Your task to perform on an android device: change text size in settings app Image 0: 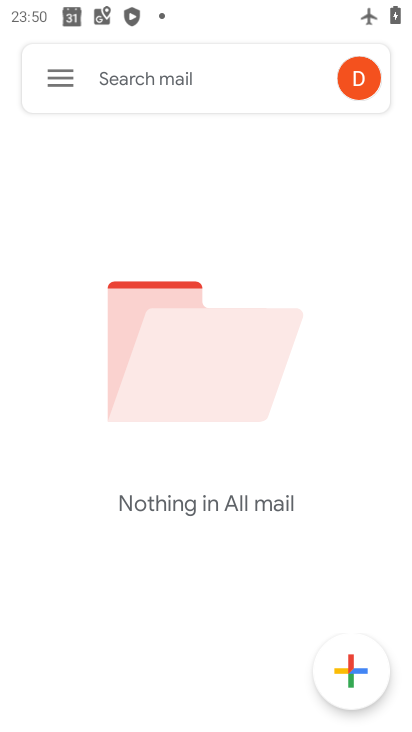
Step 0: press home button
Your task to perform on an android device: change text size in settings app Image 1: 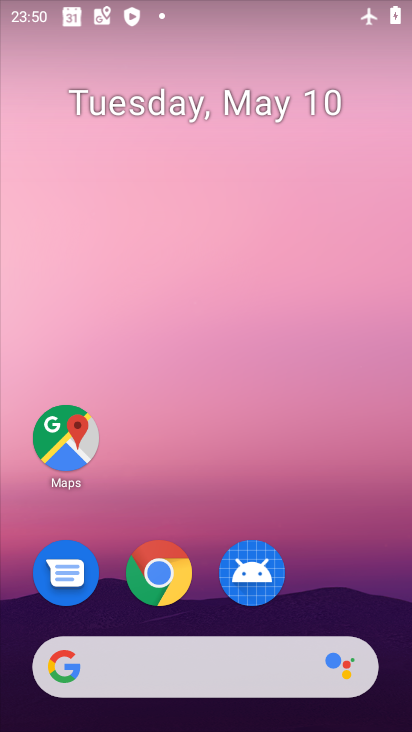
Step 1: drag from (338, 557) to (195, 37)
Your task to perform on an android device: change text size in settings app Image 2: 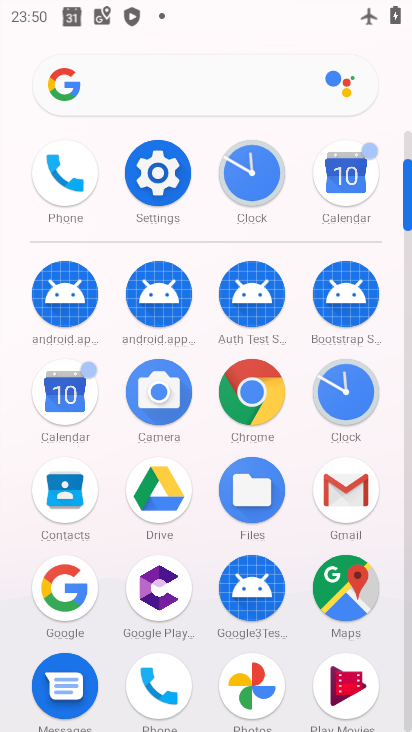
Step 2: click (163, 177)
Your task to perform on an android device: change text size in settings app Image 3: 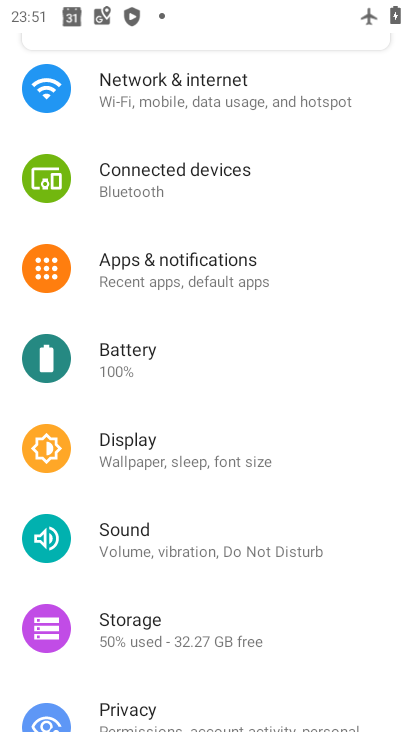
Step 3: click (150, 449)
Your task to perform on an android device: change text size in settings app Image 4: 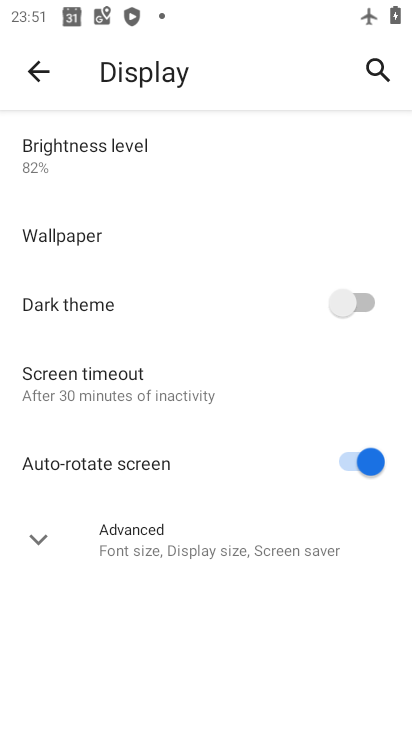
Step 4: drag from (188, 473) to (170, 51)
Your task to perform on an android device: change text size in settings app Image 5: 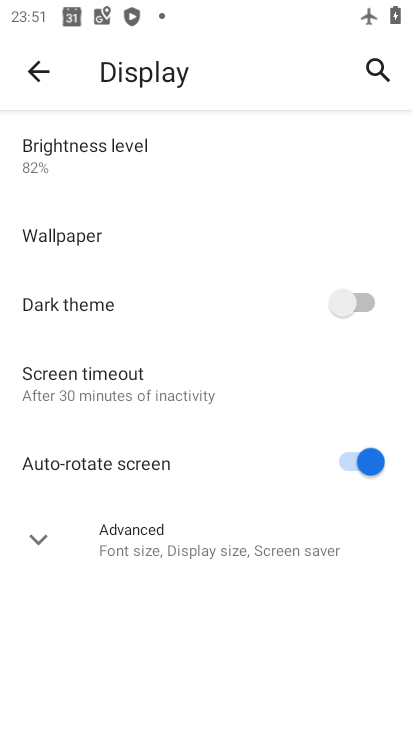
Step 5: drag from (209, 254) to (166, 727)
Your task to perform on an android device: change text size in settings app Image 6: 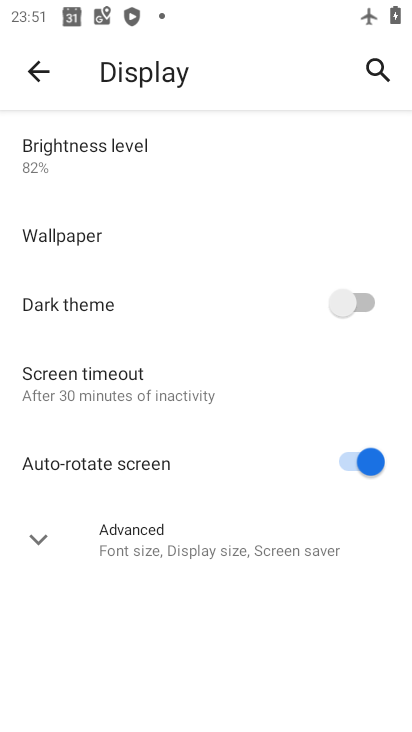
Step 6: click (105, 540)
Your task to perform on an android device: change text size in settings app Image 7: 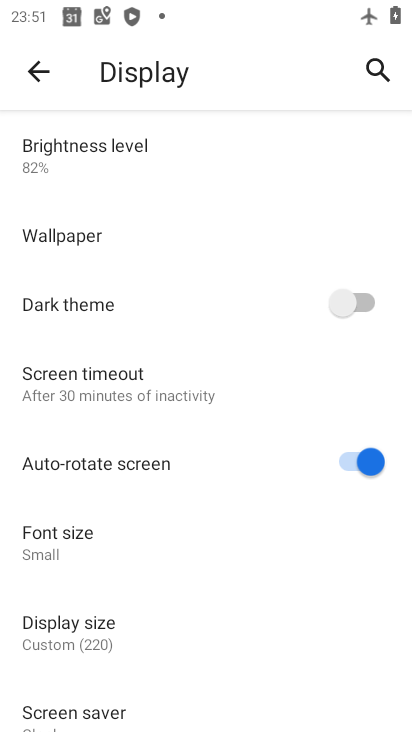
Step 7: click (68, 536)
Your task to perform on an android device: change text size in settings app Image 8: 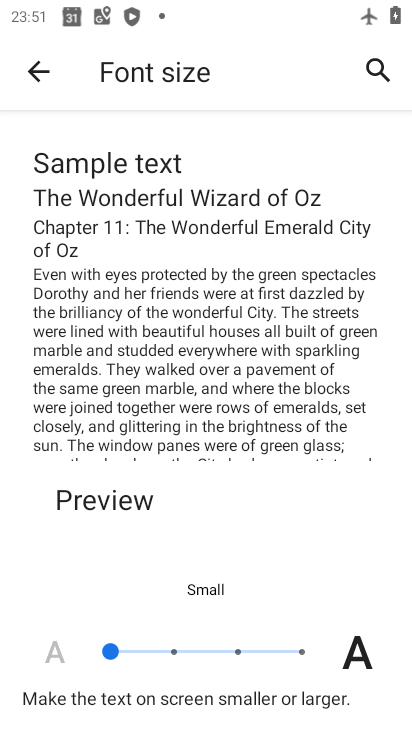
Step 8: click (168, 651)
Your task to perform on an android device: change text size in settings app Image 9: 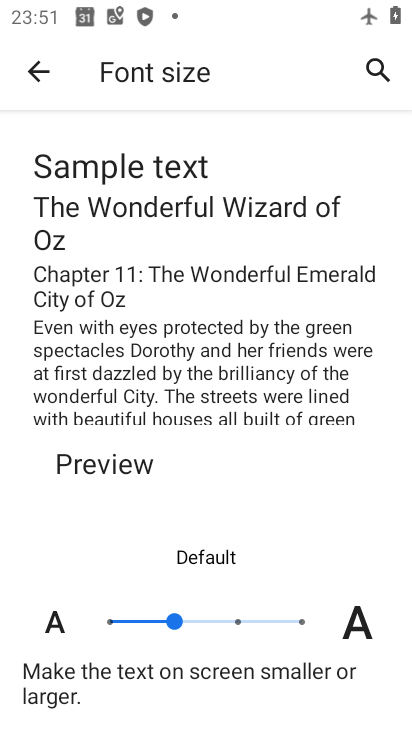
Step 9: task complete